Your task to perform on an android device: uninstall "Messages" Image 0: 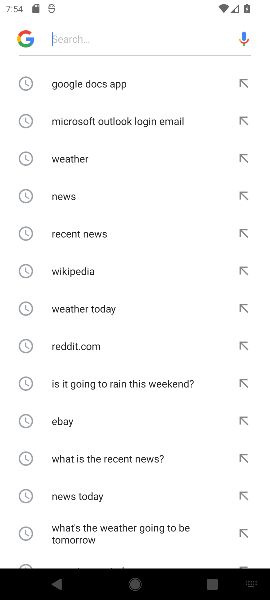
Step 0: press home button
Your task to perform on an android device: uninstall "Messages" Image 1: 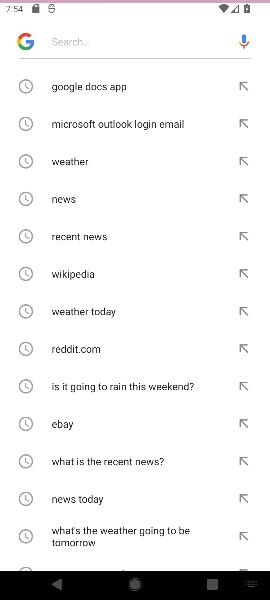
Step 1: task complete